Your task to perform on an android device: What is the recent news? Image 0: 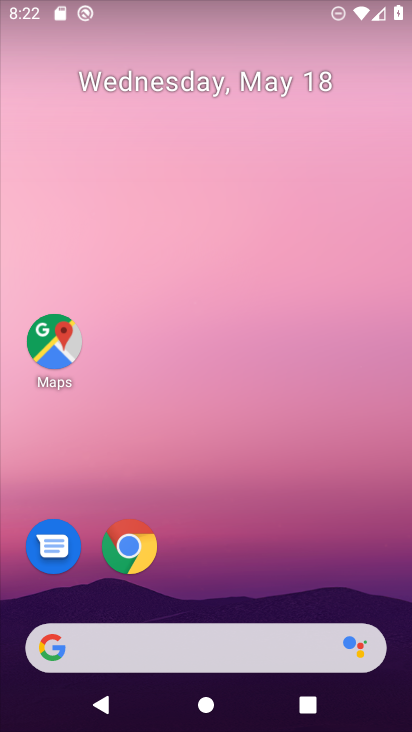
Step 0: drag from (220, 675) to (372, 137)
Your task to perform on an android device: What is the recent news? Image 1: 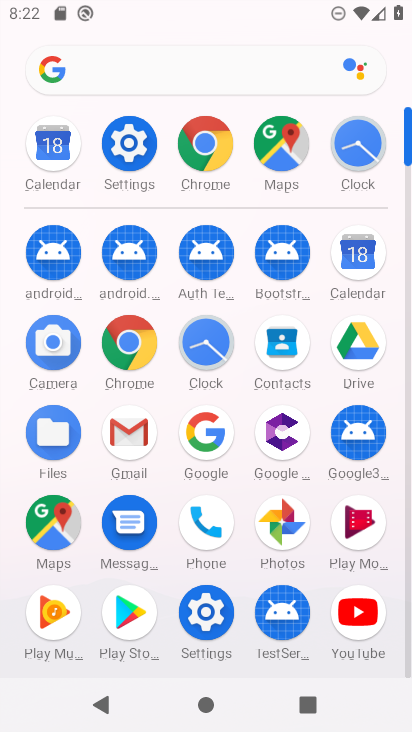
Step 1: click (146, 77)
Your task to perform on an android device: What is the recent news? Image 2: 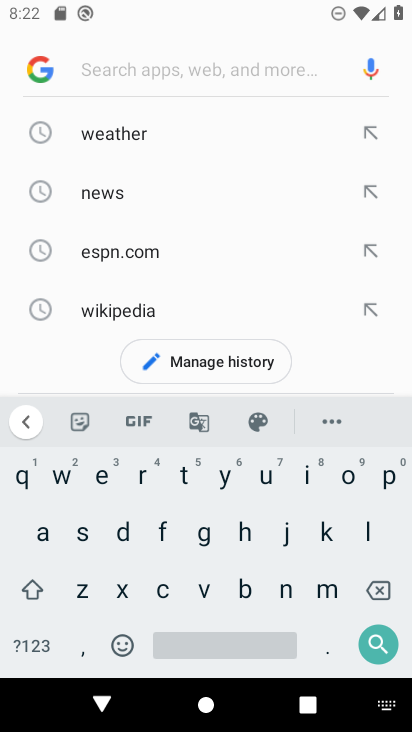
Step 2: click (135, 472)
Your task to perform on an android device: What is the recent news? Image 3: 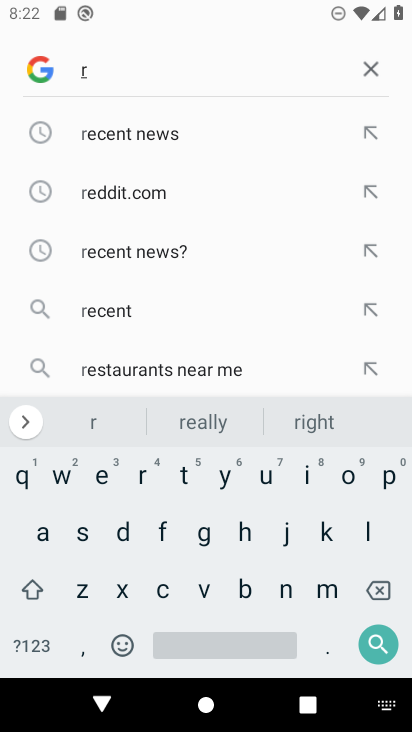
Step 3: click (116, 142)
Your task to perform on an android device: What is the recent news? Image 4: 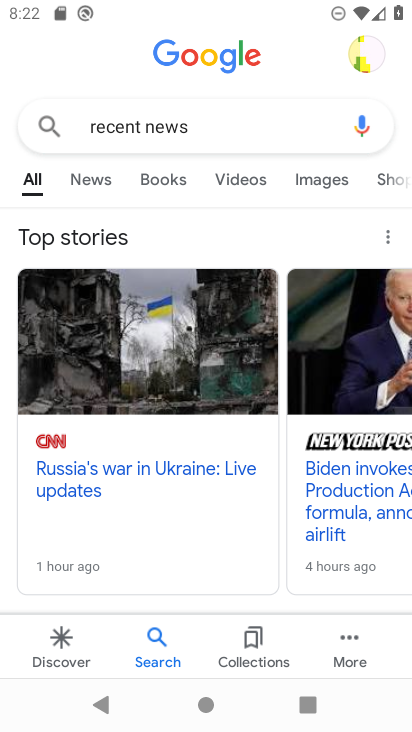
Step 4: task complete